Your task to perform on an android device: What is the recent news? Image 0: 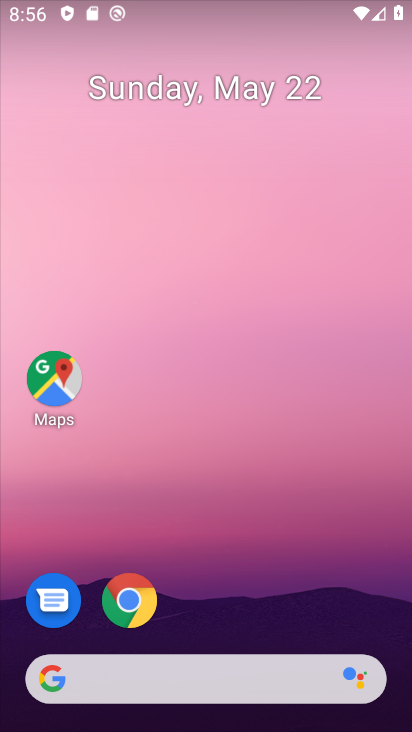
Step 0: drag from (270, 585) to (156, 22)
Your task to perform on an android device: What is the recent news? Image 1: 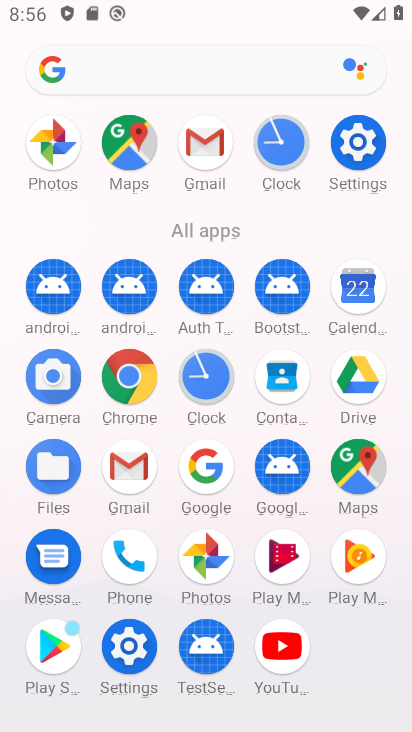
Step 1: drag from (166, 442) to (167, 318)
Your task to perform on an android device: What is the recent news? Image 2: 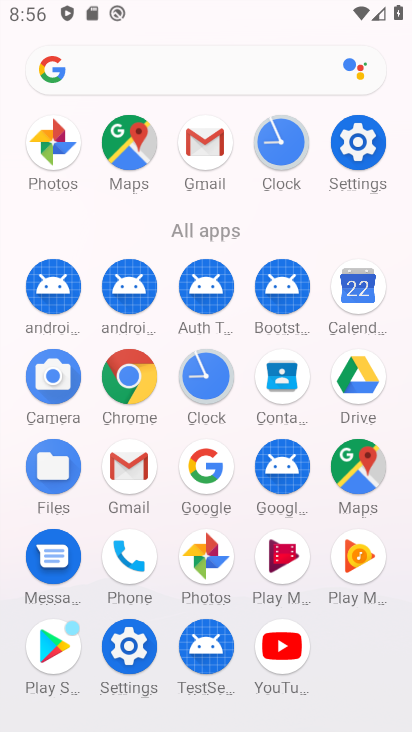
Step 2: click (204, 466)
Your task to perform on an android device: What is the recent news? Image 3: 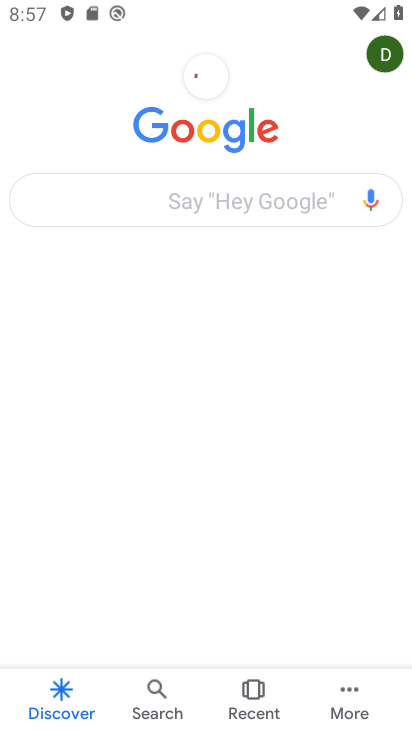
Step 3: click (163, 194)
Your task to perform on an android device: What is the recent news? Image 4: 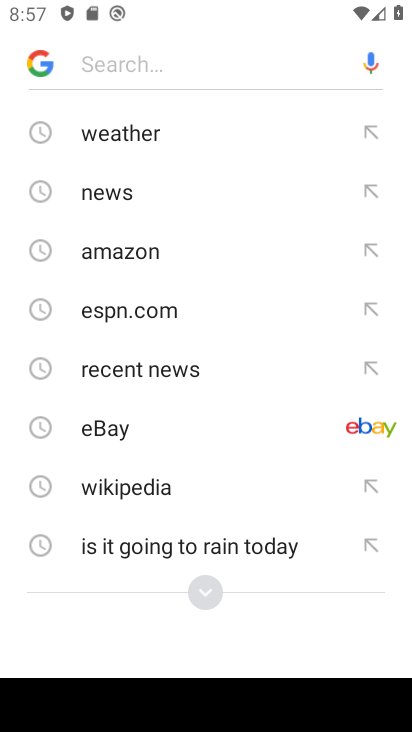
Step 4: type "recent news"
Your task to perform on an android device: What is the recent news? Image 5: 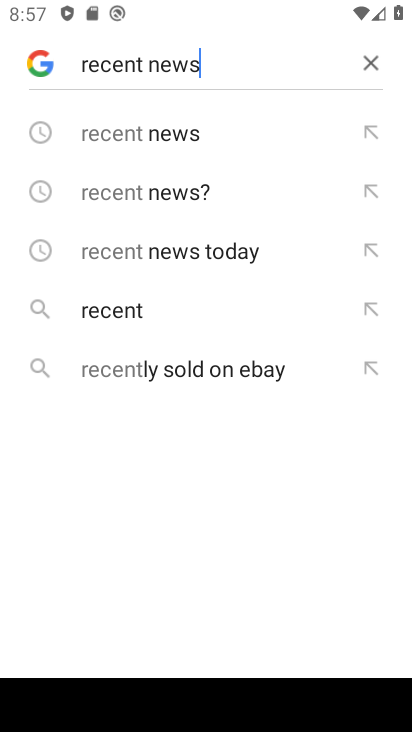
Step 5: type ""
Your task to perform on an android device: What is the recent news? Image 6: 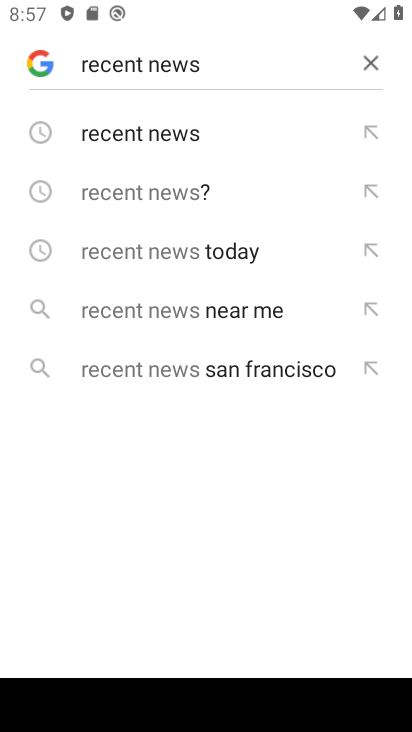
Step 6: click (97, 136)
Your task to perform on an android device: What is the recent news? Image 7: 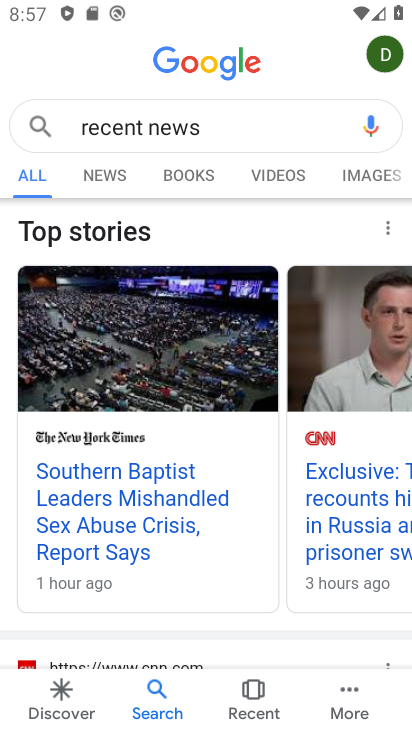
Step 7: click (181, 359)
Your task to perform on an android device: What is the recent news? Image 8: 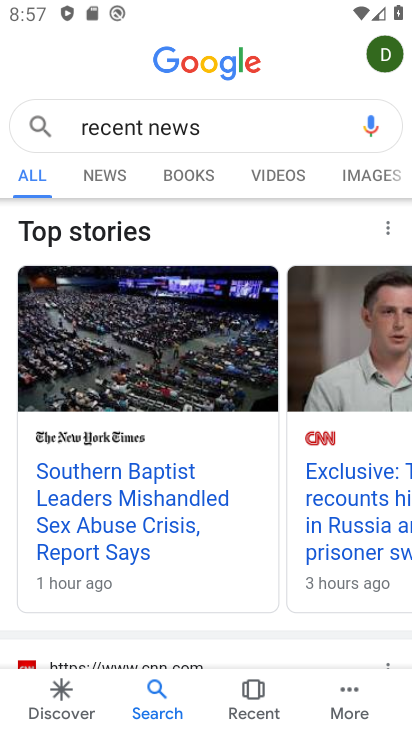
Step 8: click (136, 473)
Your task to perform on an android device: What is the recent news? Image 9: 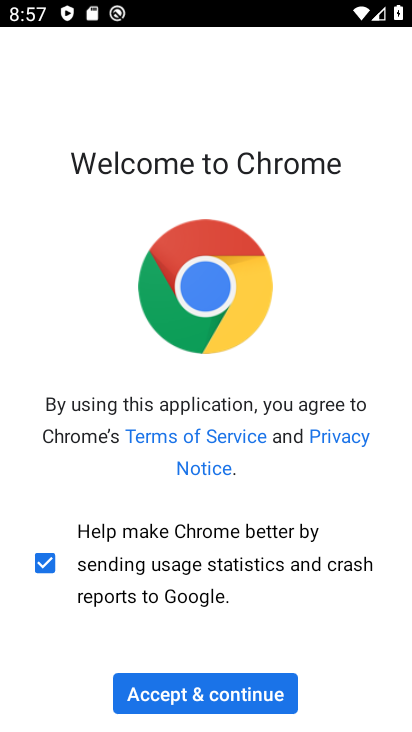
Step 9: click (175, 696)
Your task to perform on an android device: What is the recent news? Image 10: 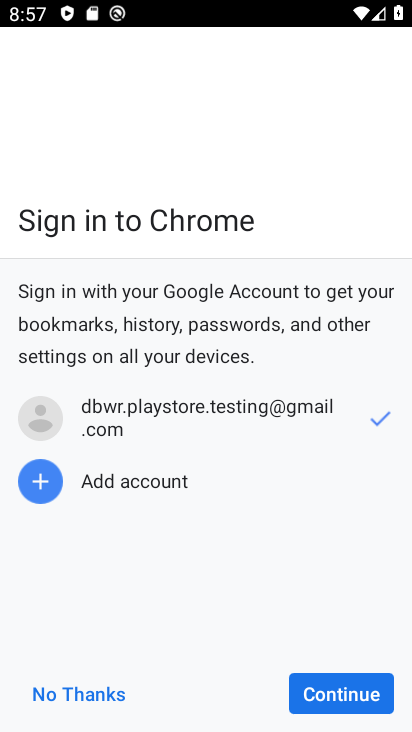
Step 10: click (329, 681)
Your task to perform on an android device: What is the recent news? Image 11: 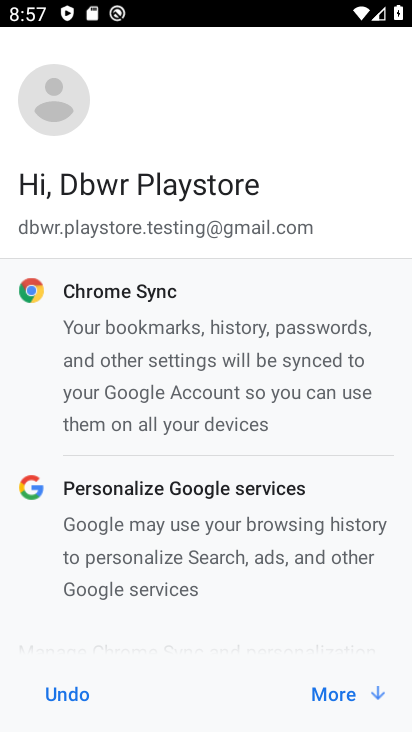
Step 11: click (341, 696)
Your task to perform on an android device: What is the recent news? Image 12: 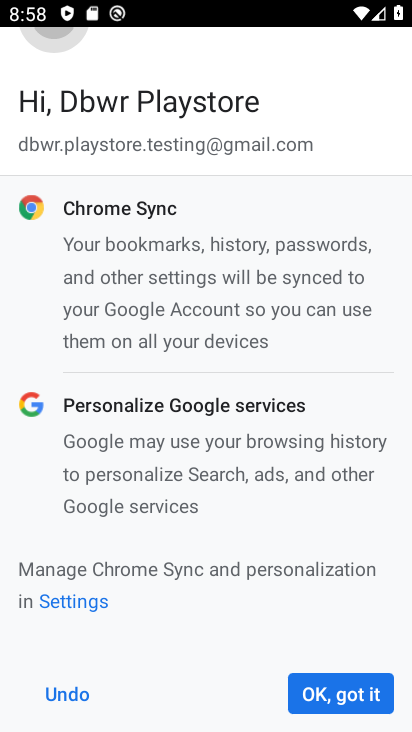
Step 12: click (341, 696)
Your task to perform on an android device: What is the recent news? Image 13: 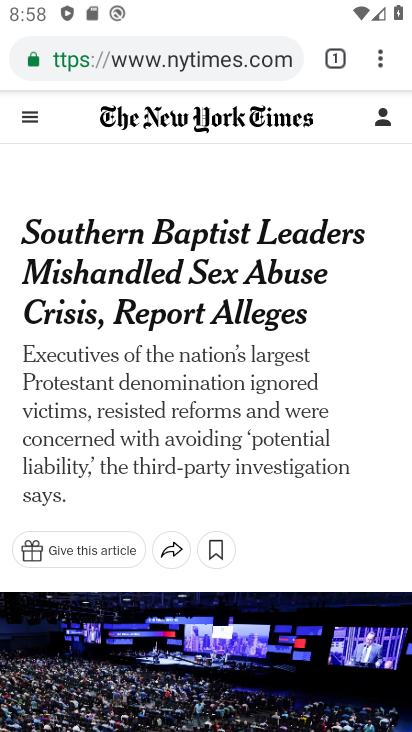
Step 13: task complete